Your task to perform on an android device: Search for a new mascara Image 0: 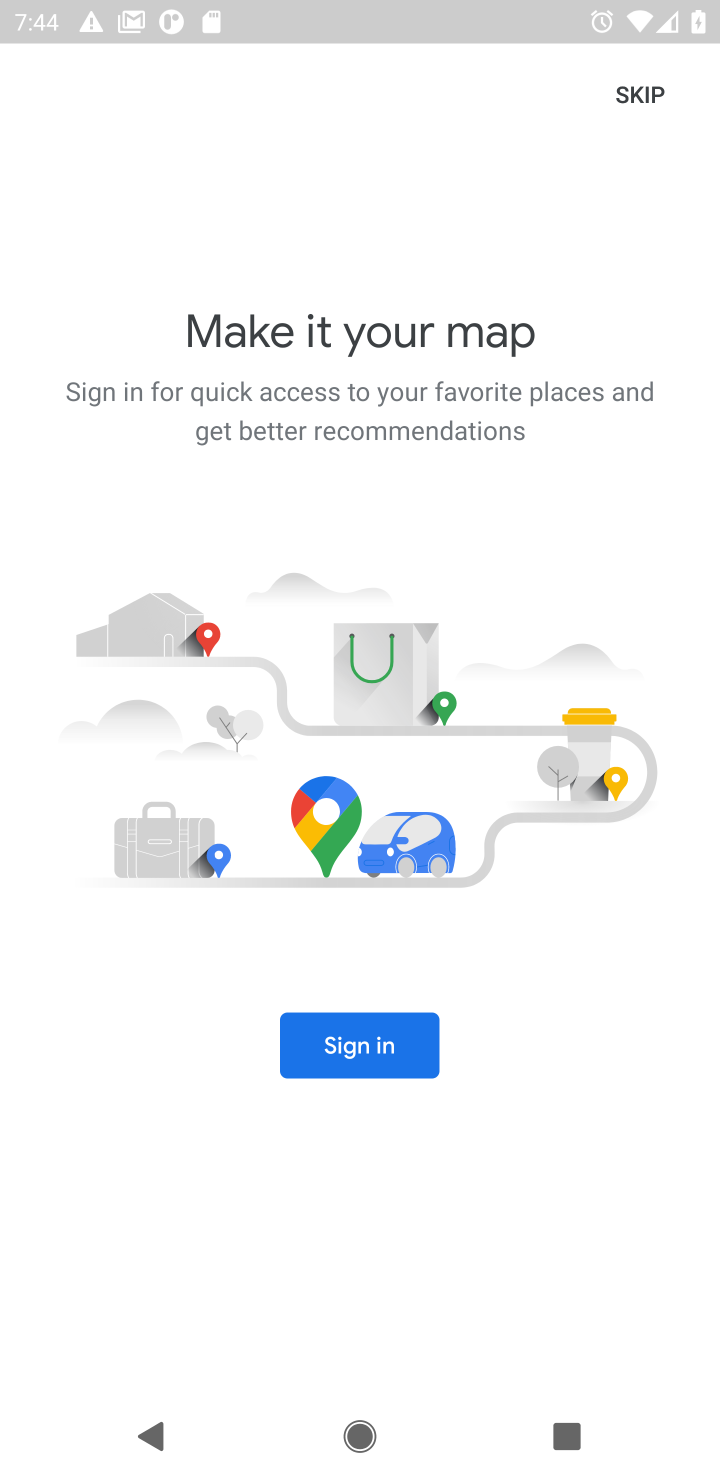
Step 0: press home button
Your task to perform on an android device: Search for a new mascara Image 1: 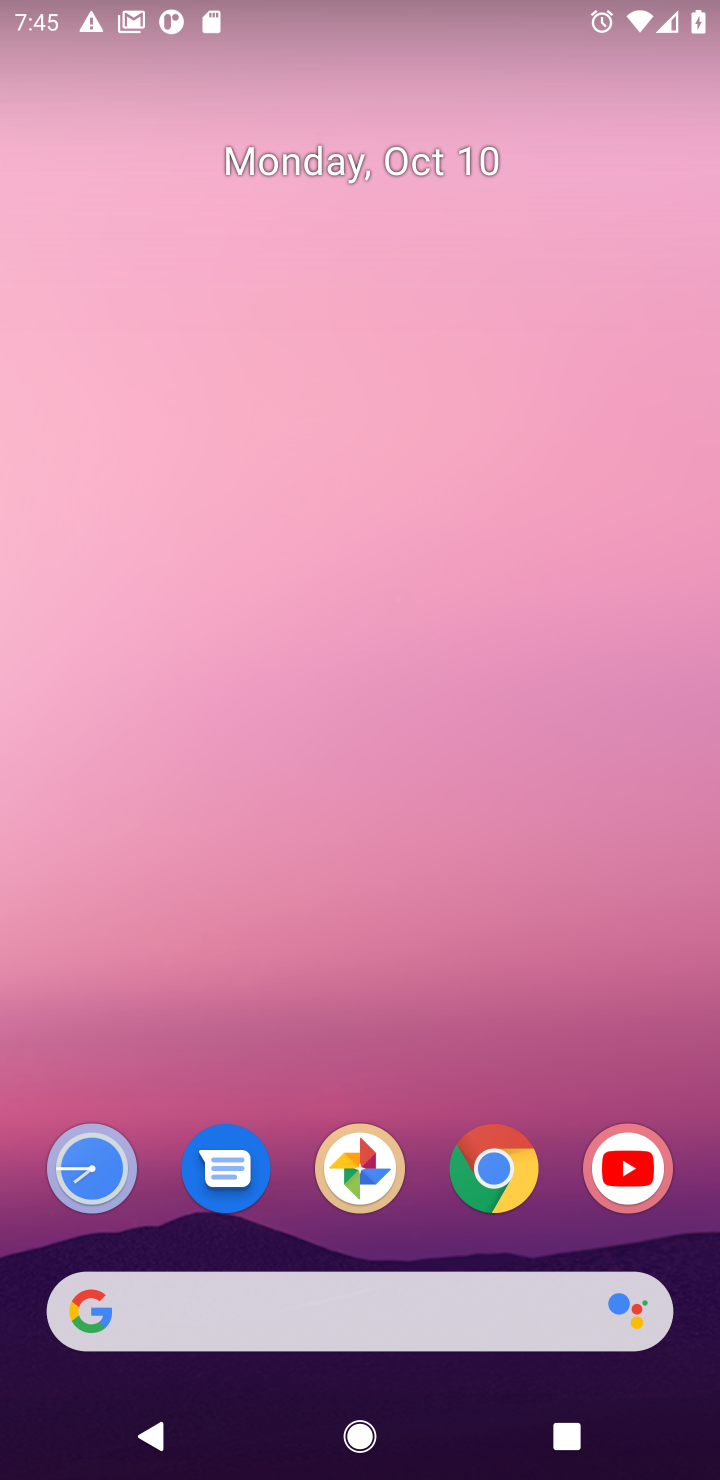
Step 1: click (495, 1180)
Your task to perform on an android device: Search for a new mascara Image 2: 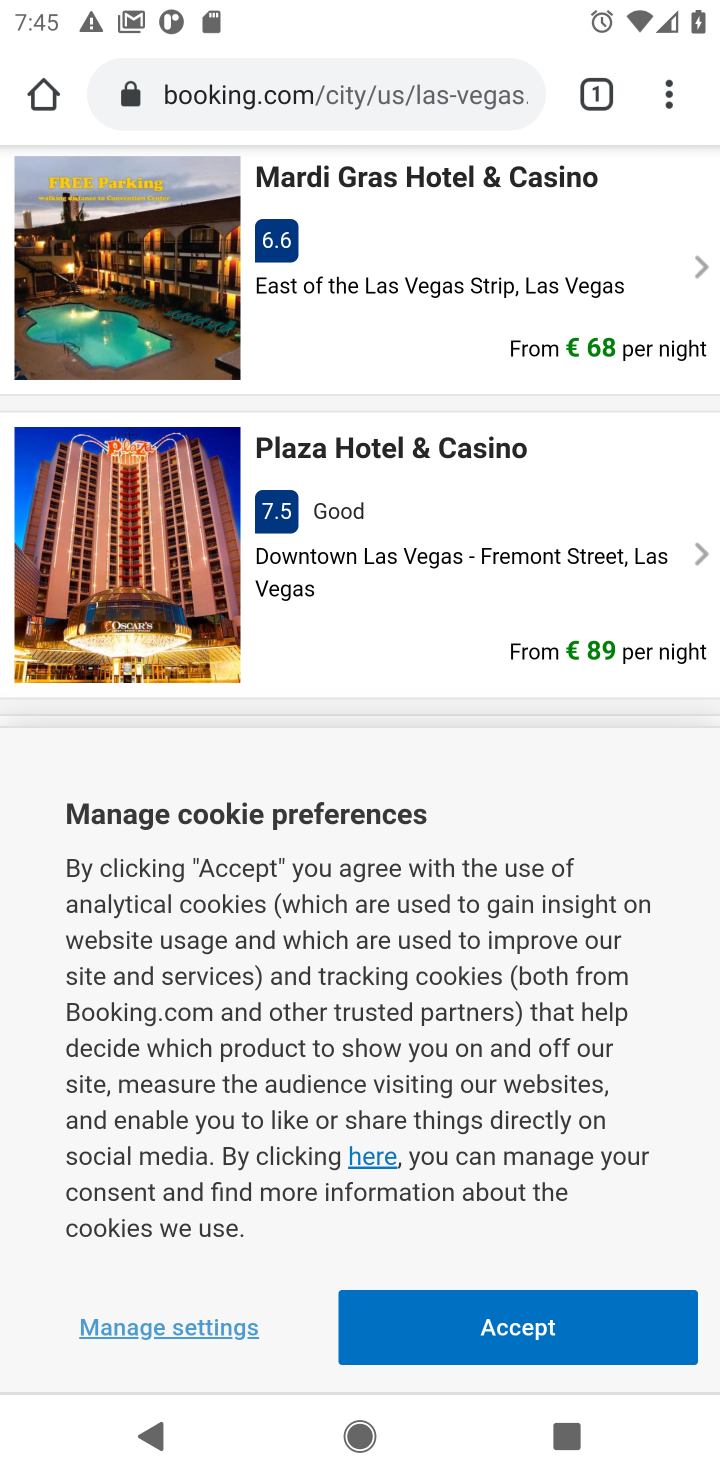
Step 2: click (311, 95)
Your task to perform on an android device: Search for a new mascara Image 3: 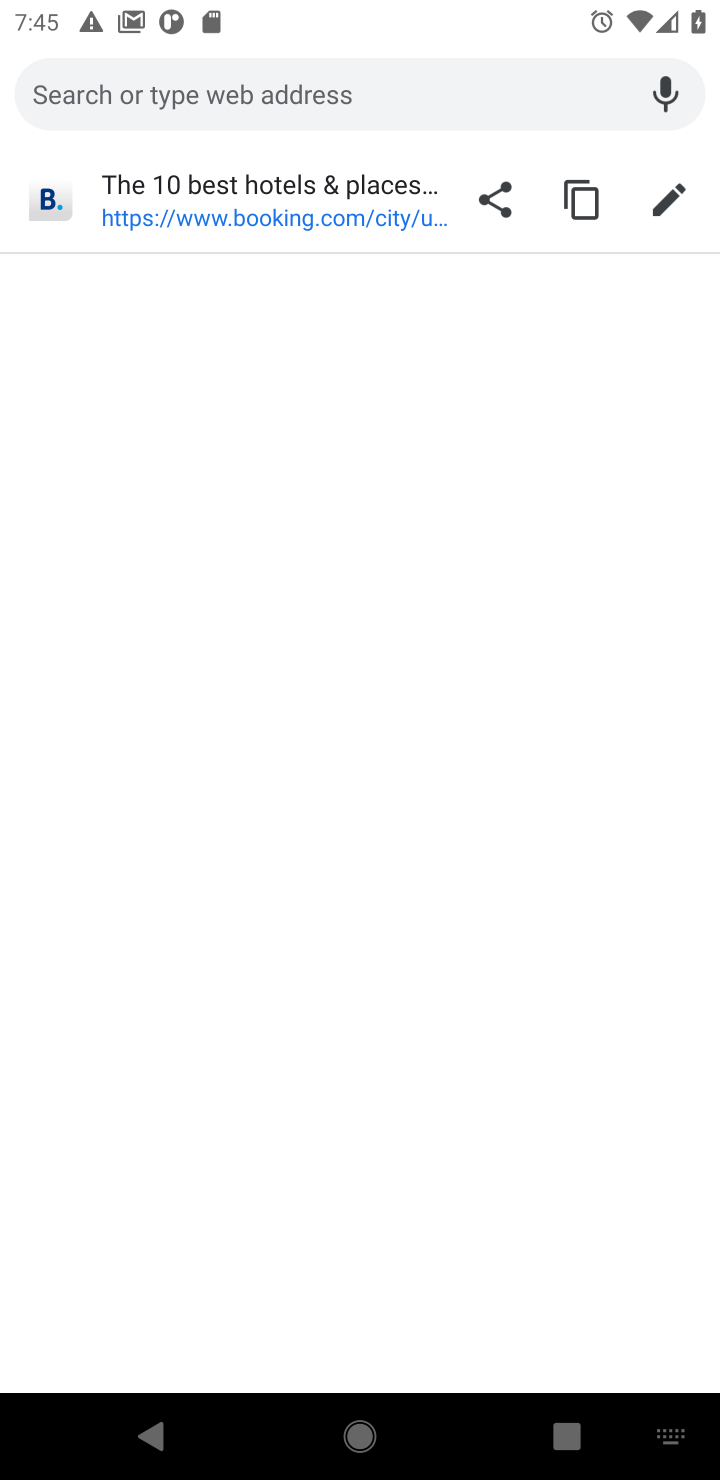
Step 3: type "new mascara"
Your task to perform on an android device: Search for a new mascara Image 4: 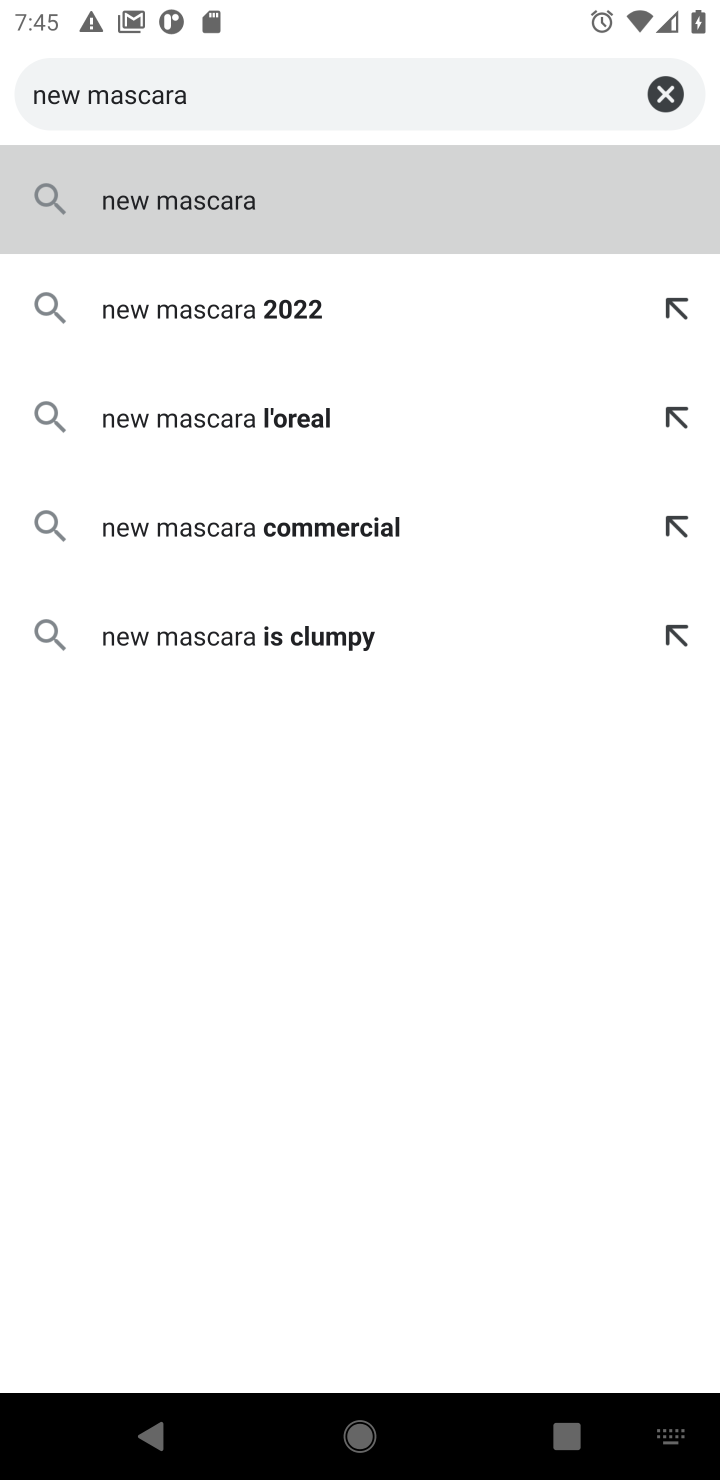
Step 4: click (207, 232)
Your task to perform on an android device: Search for a new mascara Image 5: 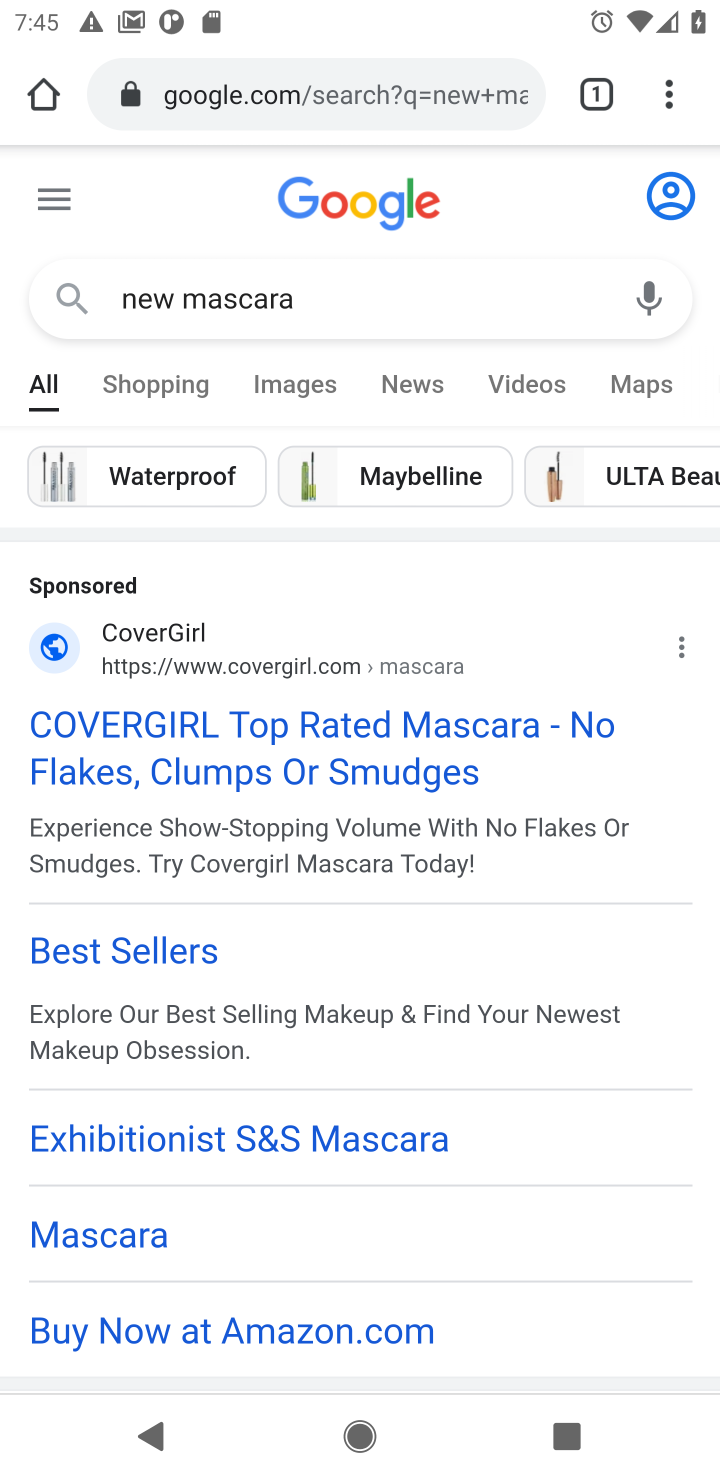
Step 5: drag from (297, 889) to (307, 552)
Your task to perform on an android device: Search for a new mascara Image 6: 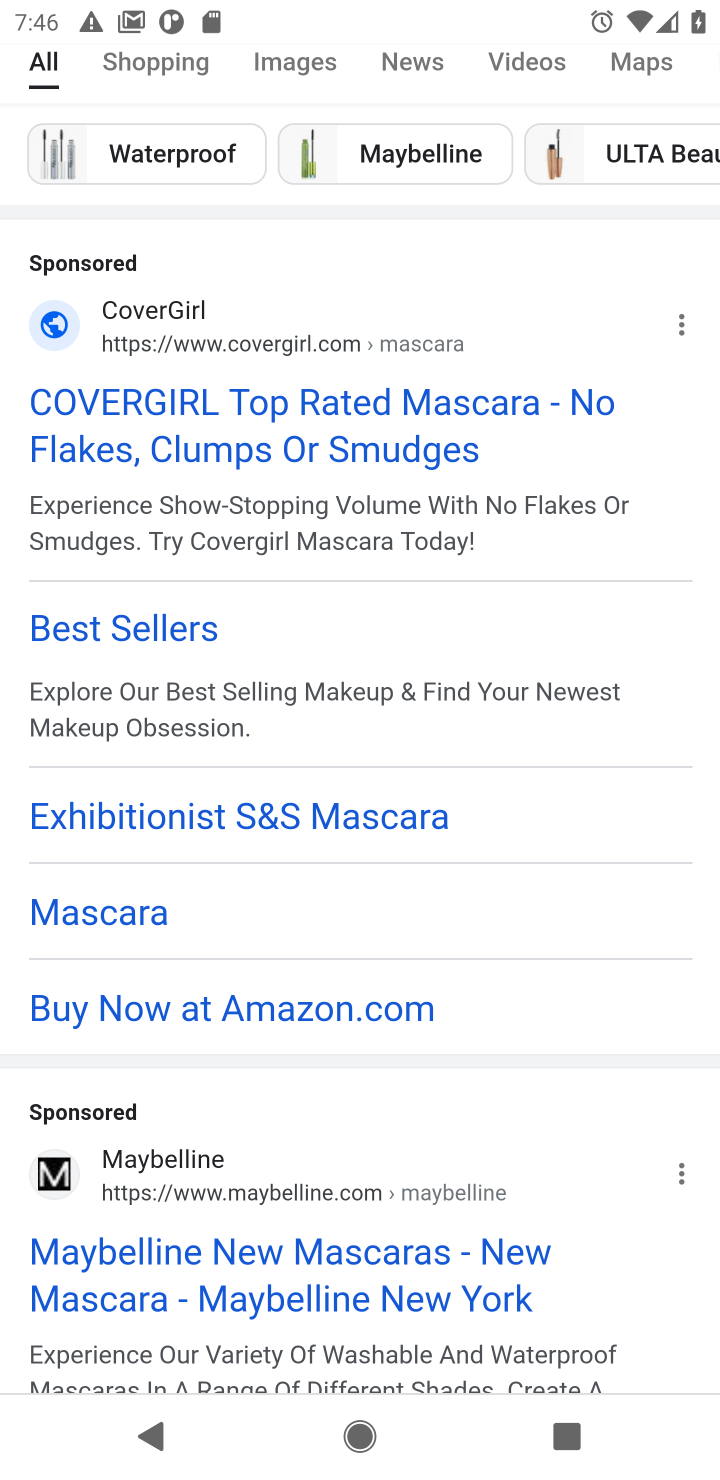
Step 6: drag from (264, 877) to (311, 491)
Your task to perform on an android device: Search for a new mascara Image 7: 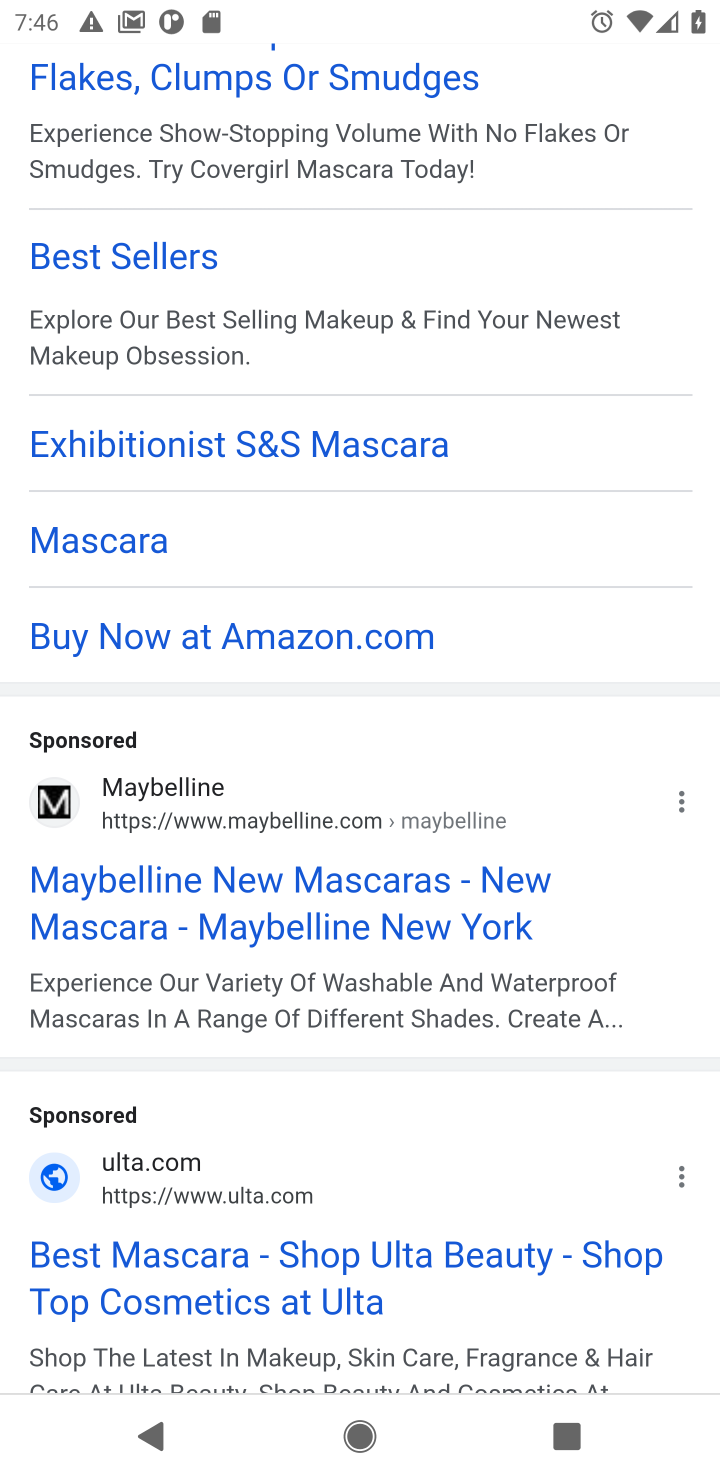
Step 7: click (175, 886)
Your task to perform on an android device: Search for a new mascara Image 8: 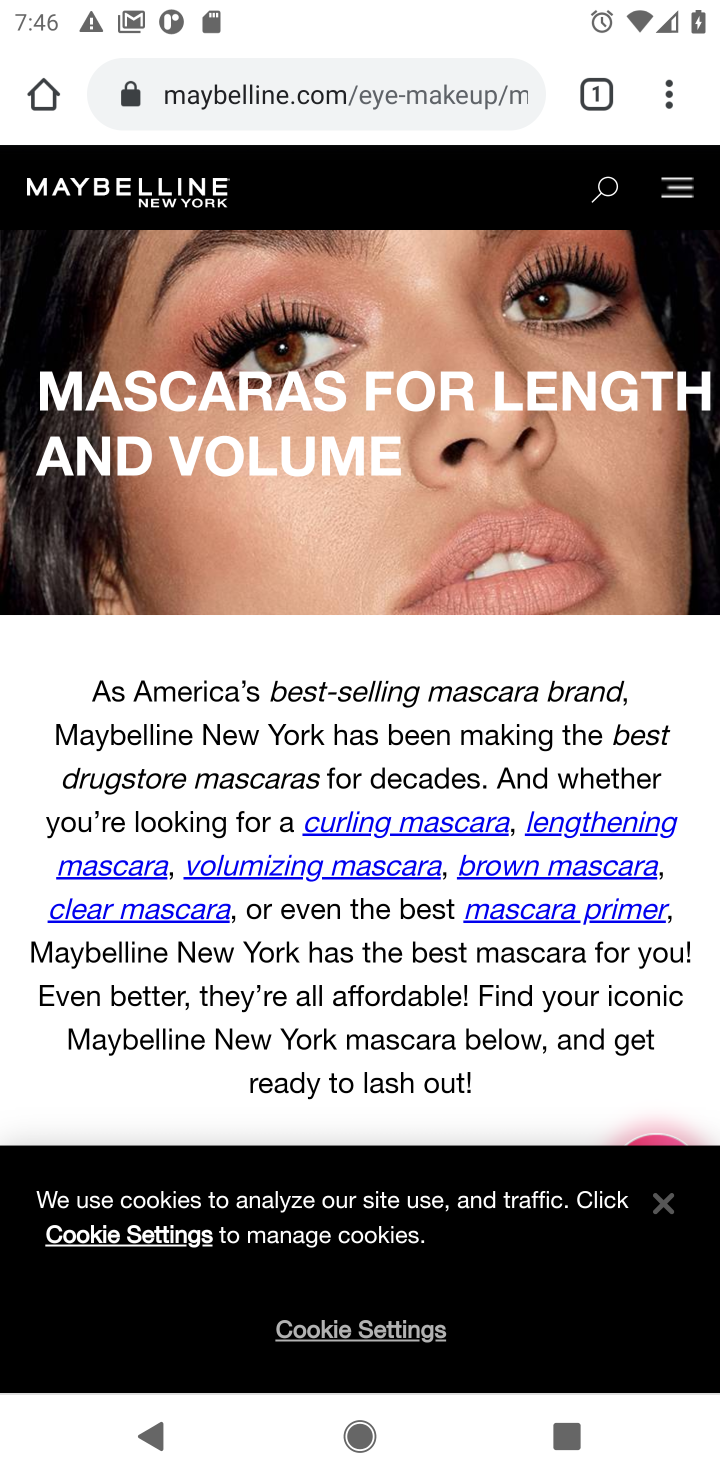
Step 8: task complete